Your task to perform on an android device: Open Amazon Image 0: 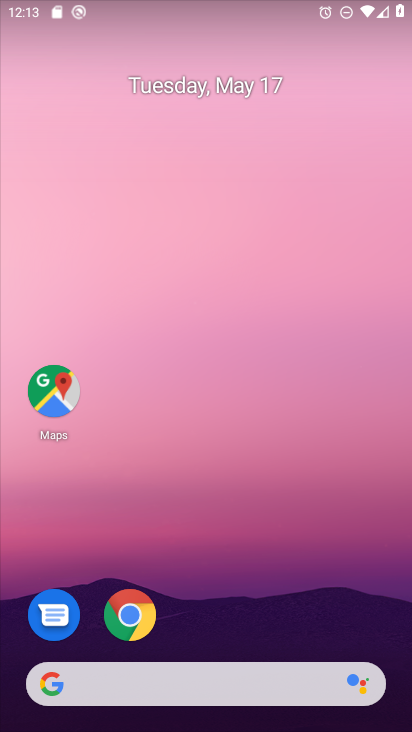
Step 0: click (137, 618)
Your task to perform on an android device: Open Amazon Image 1: 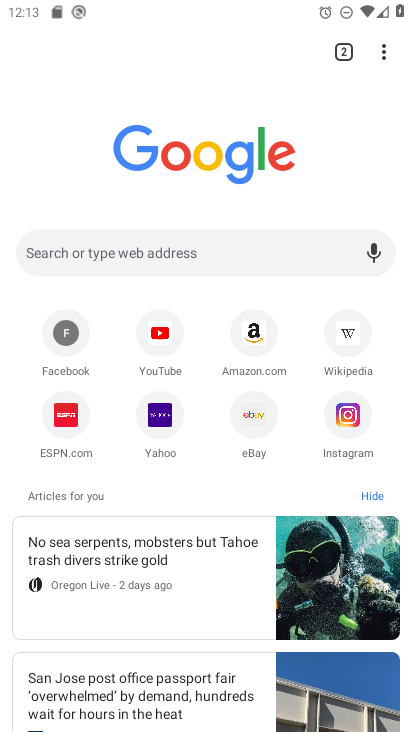
Step 1: click (251, 334)
Your task to perform on an android device: Open Amazon Image 2: 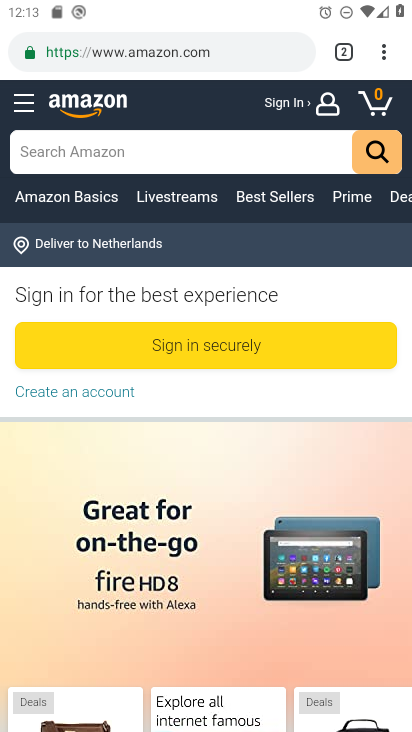
Step 2: task complete